Your task to perform on an android device: open wifi settings Image 0: 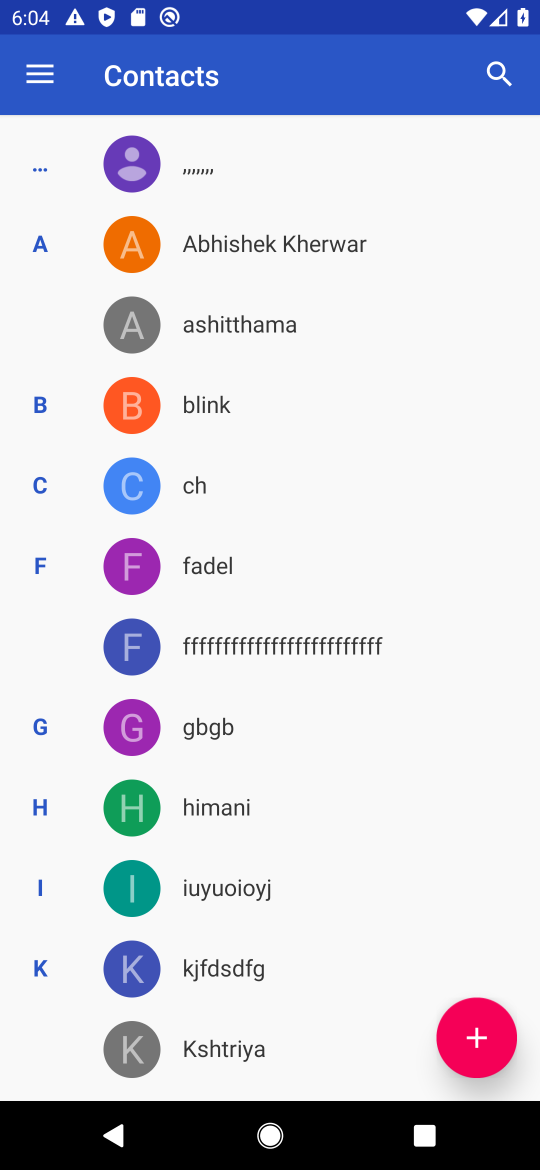
Step 0: drag from (396, 14) to (511, 818)
Your task to perform on an android device: open wifi settings Image 1: 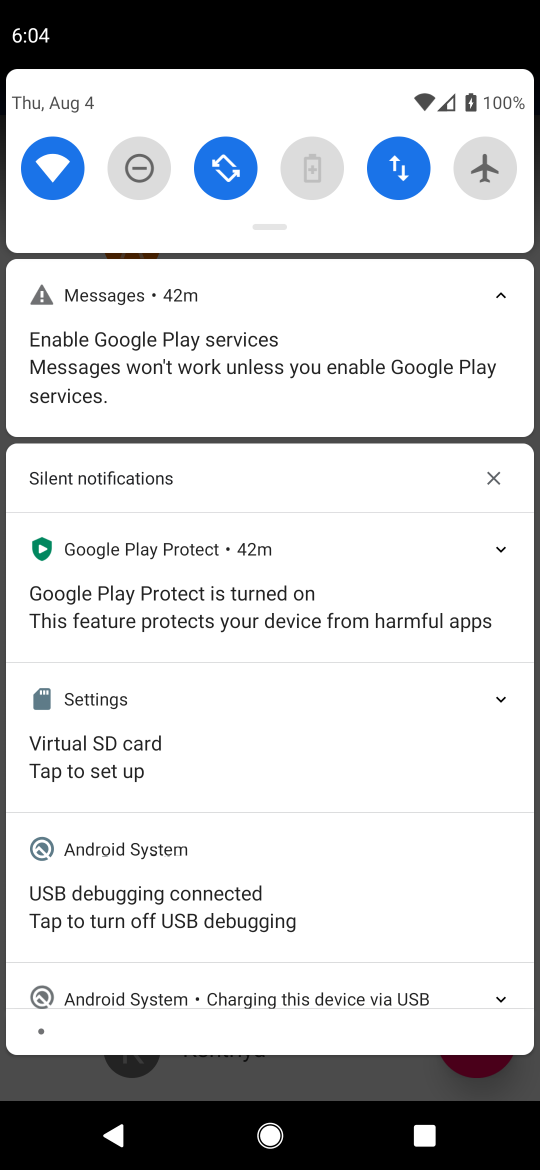
Step 1: click (65, 169)
Your task to perform on an android device: open wifi settings Image 2: 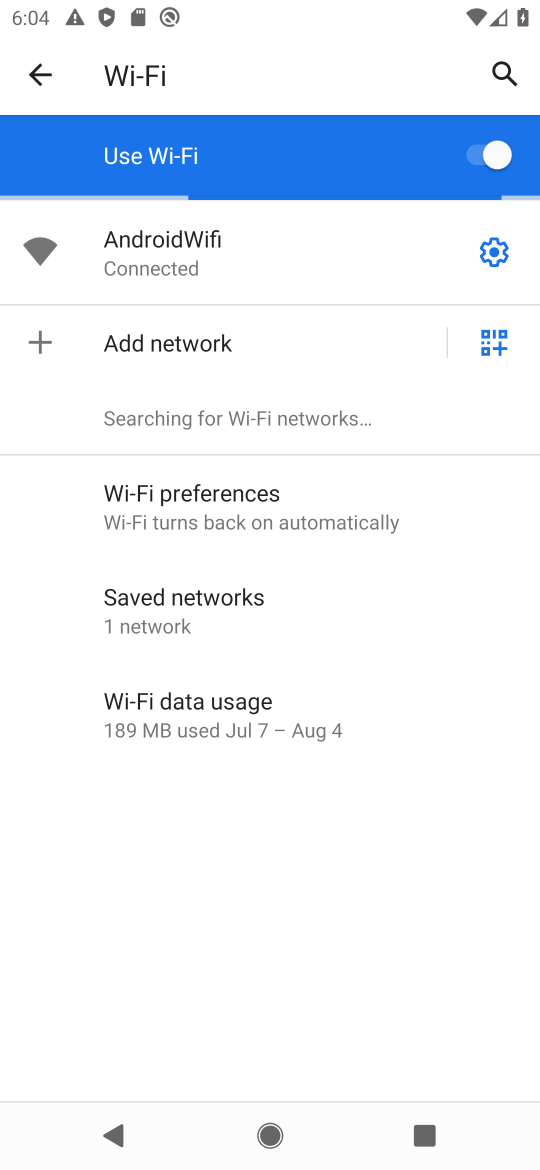
Step 2: task complete